Your task to perform on an android device: toggle improve location accuracy Image 0: 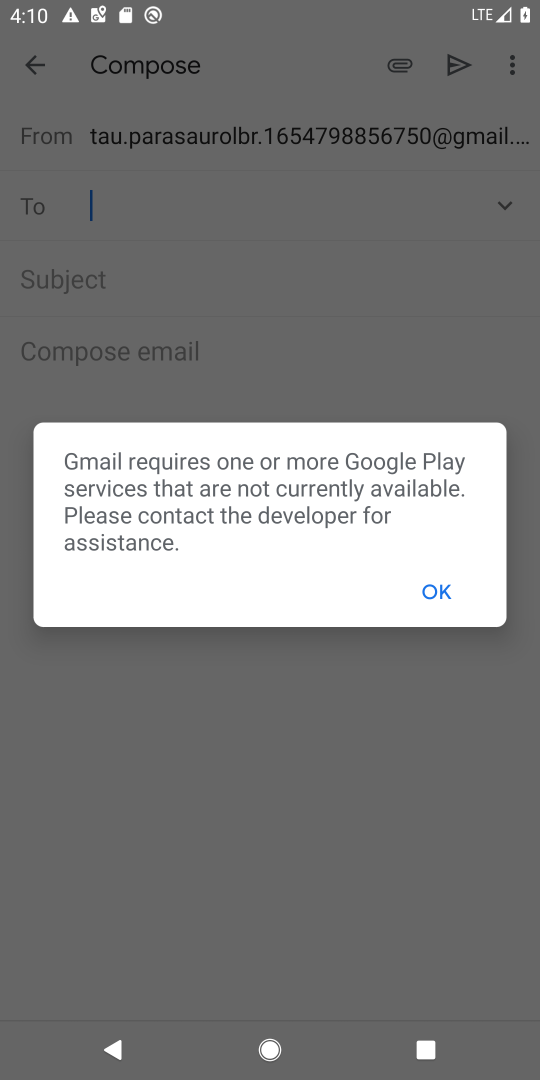
Step 0: press back button
Your task to perform on an android device: toggle improve location accuracy Image 1: 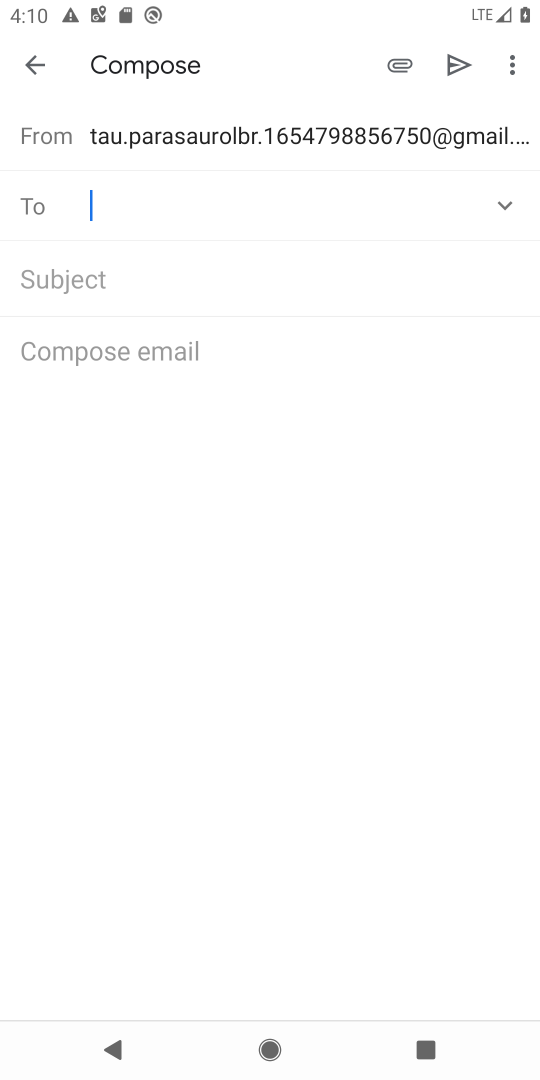
Step 1: press home button
Your task to perform on an android device: toggle improve location accuracy Image 2: 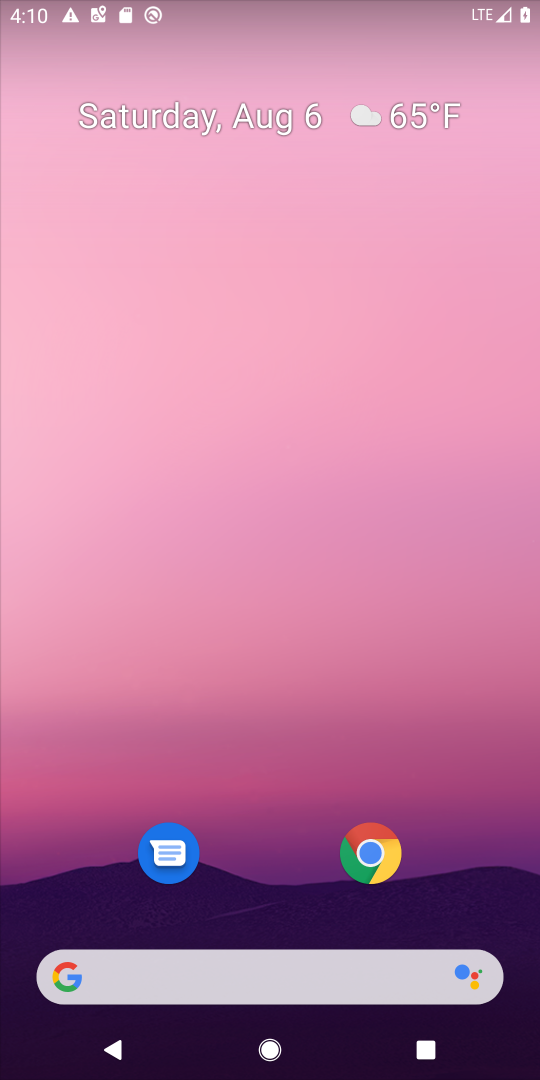
Step 2: drag from (293, 827) to (373, 69)
Your task to perform on an android device: toggle improve location accuracy Image 3: 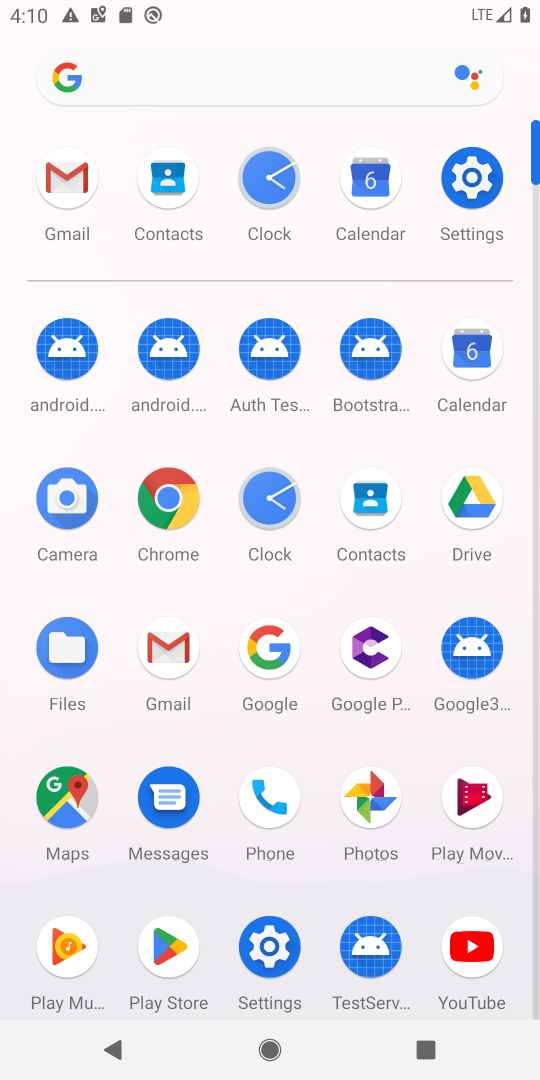
Step 3: click (486, 176)
Your task to perform on an android device: toggle improve location accuracy Image 4: 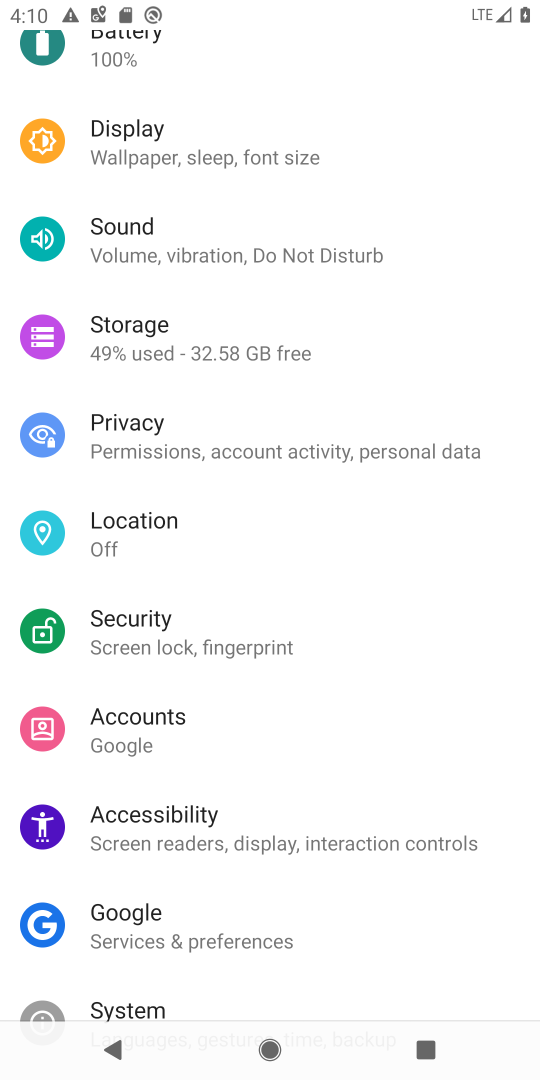
Step 4: click (161, 531)
Your task to perform on an android device: toggle improve location accuracy Image 5: 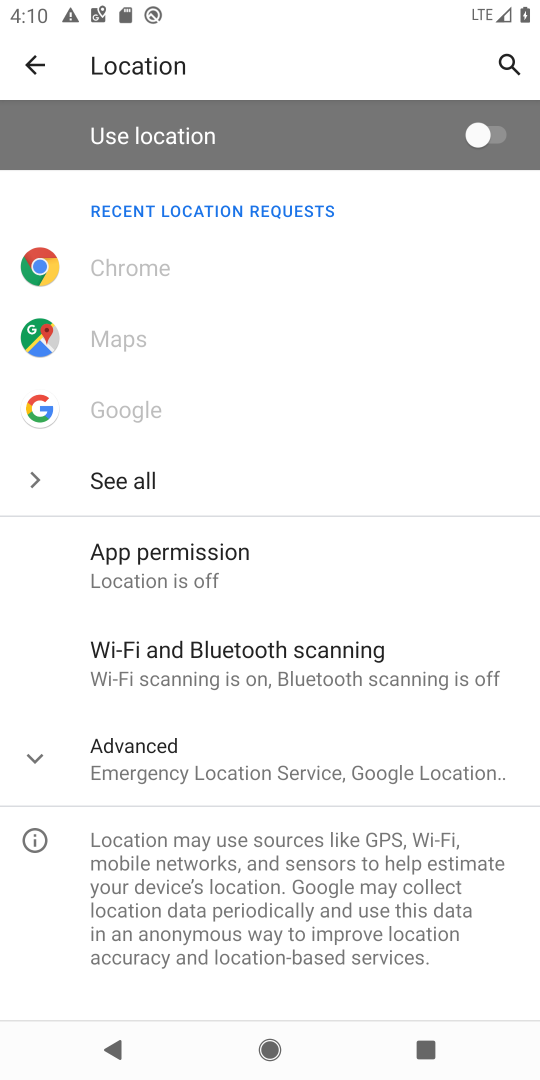
Step 5: click (164, 767)
Your task to perform on an android device: toggle improve location accuracy Image 6: 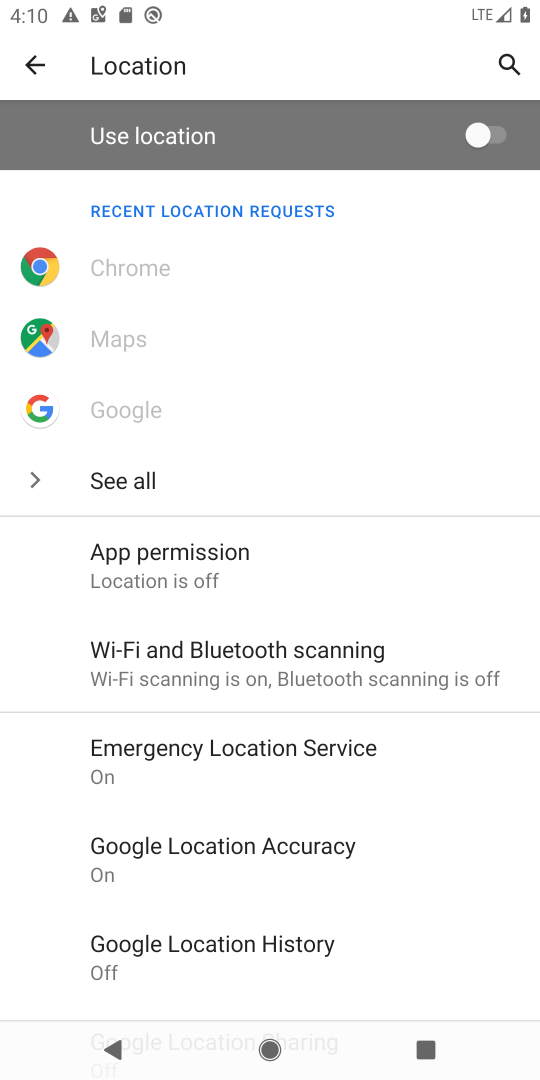
Step 6: click (192, 839)
Your task to perform on an android device: toggle improve location accuracy Image 7: 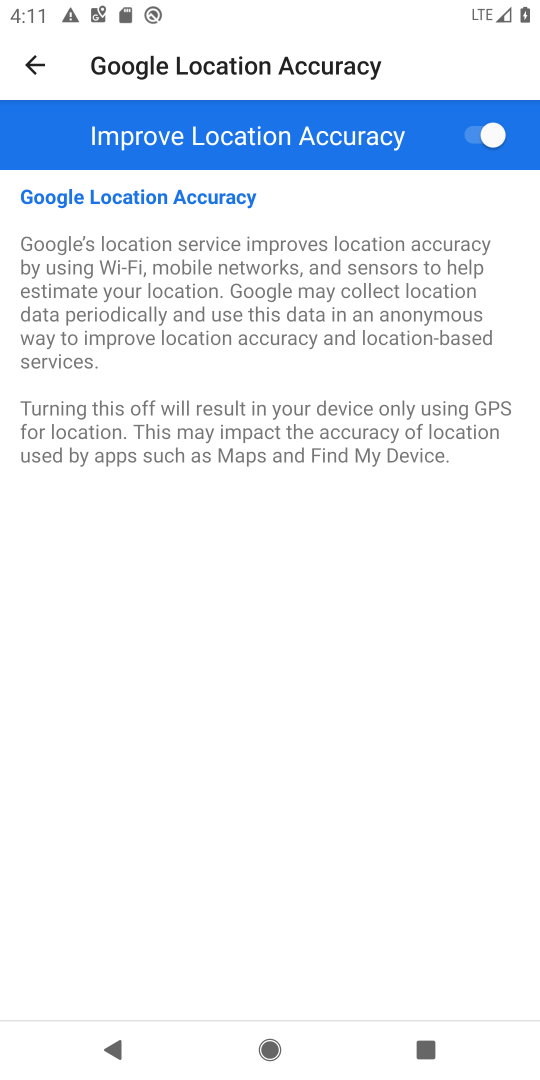
Step 7: task complete